Your task to perform on an android device: Go to ESPN.com Image 0: 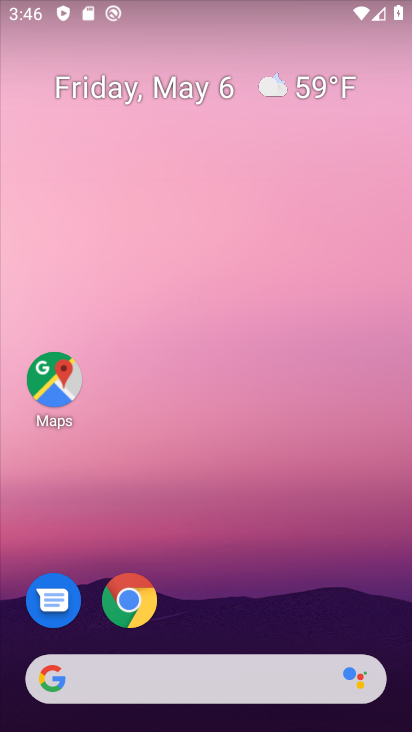
Step 0: click (145, 597)
Your task to perform on an android device: Go to ESPN.com Image 1: 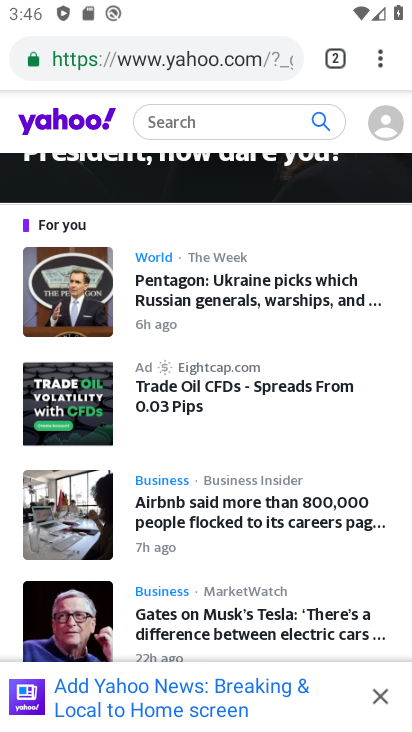
Step 1: click (162, 64)
Your task to perform on an android device: Go to ESPN.com Image 2: 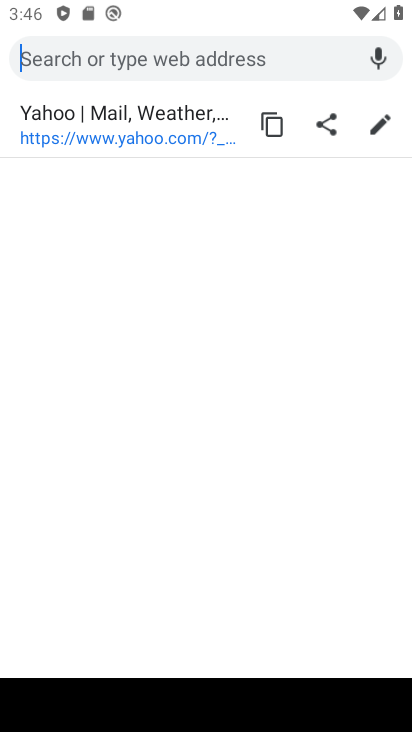
Step 2: type "ESPN.com"
Your task to perform on an android device: Go to ESPN.com Image 3: 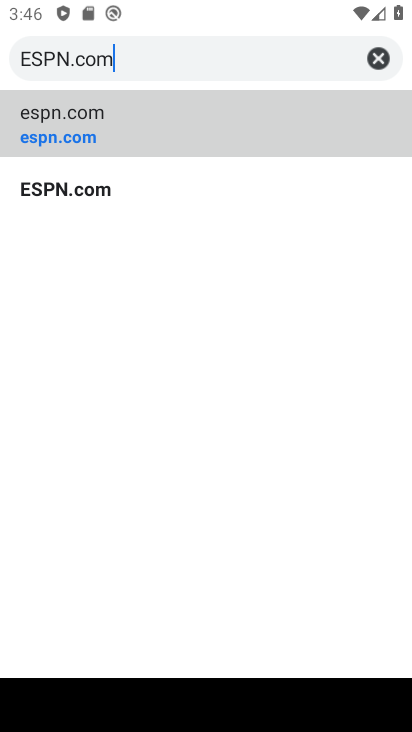
Step 3: click (45, 181)
Your task to perform on an android device: Go to ESPN.com Image 4: 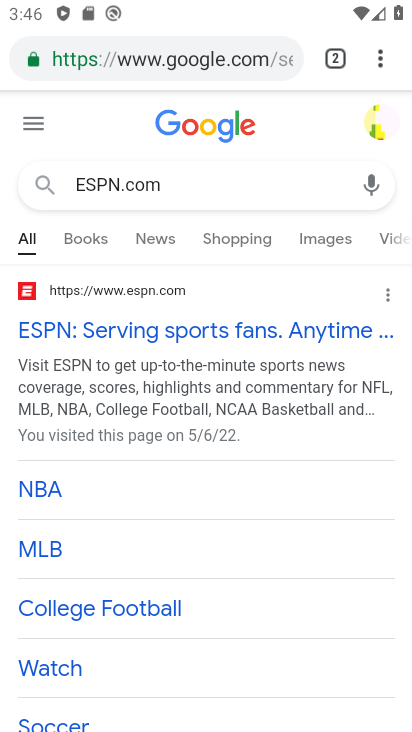
Step 4: task complete